Your task to perform on an android device: delete browsing data in the chrome app Image 0: 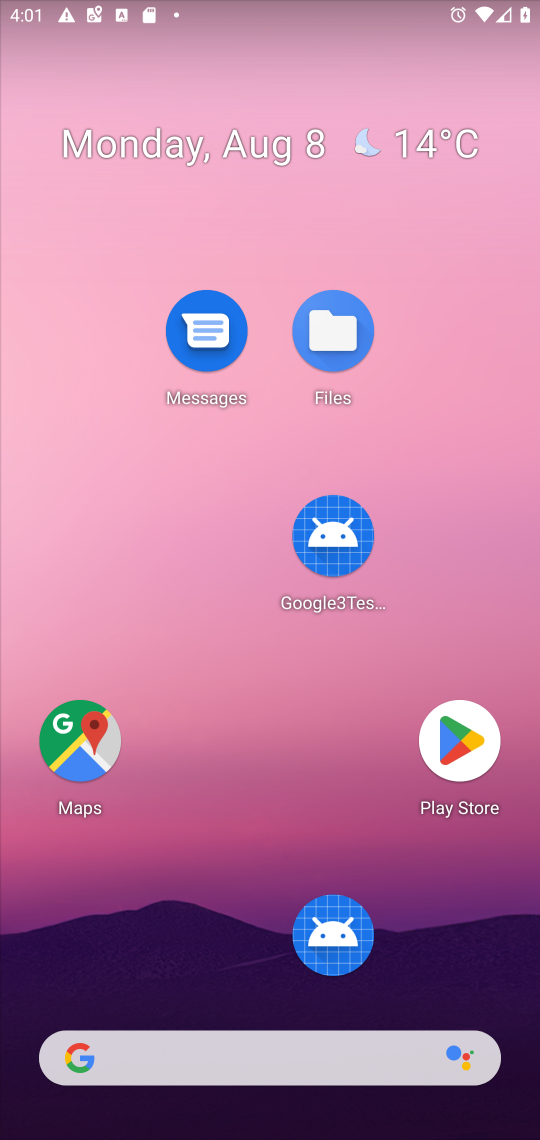
Step 0: drag from (290, 1061) to (339, 28)
Your task to perform on an android device: delete browsing data in the chrome app Image 1: 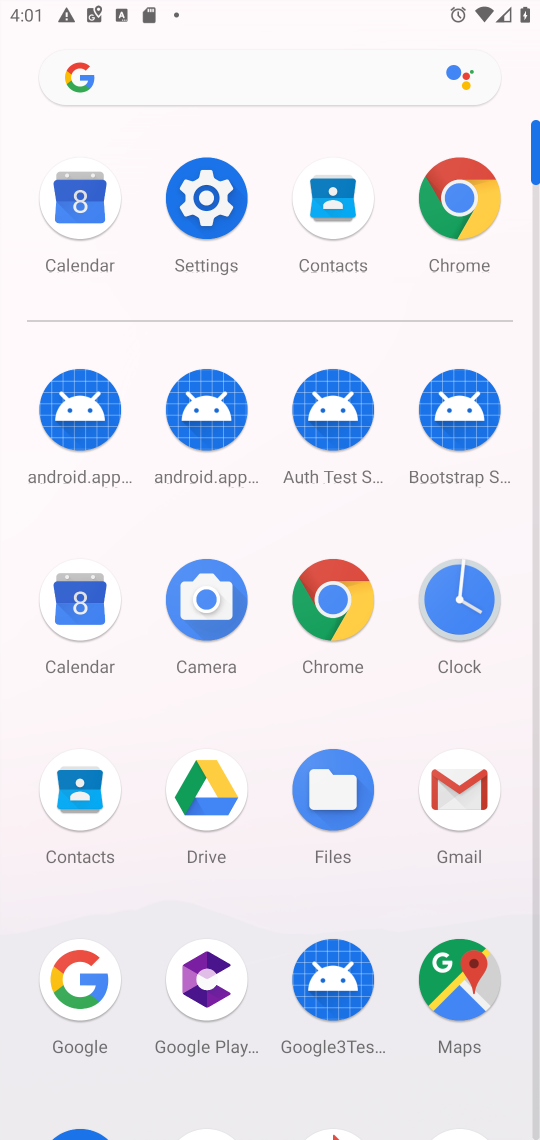
Step 1: click (353, 606)
Your task to perform on an android device: delete browsing data in the chrome app Image 2: 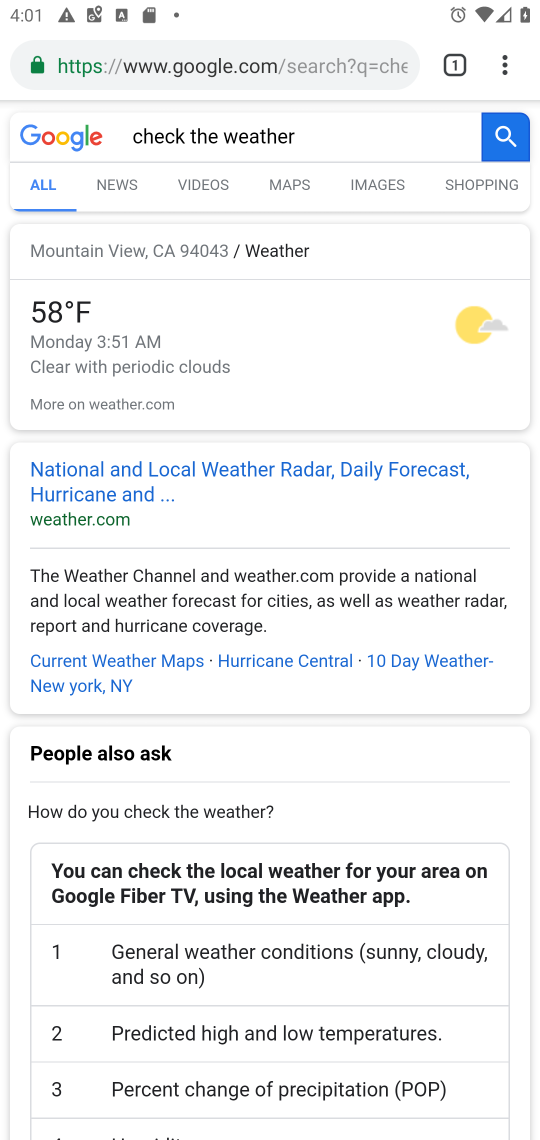
Step 2: click (499, 61)
Your task to perform on an android device: delete browsing data in the chrome app Image 3: 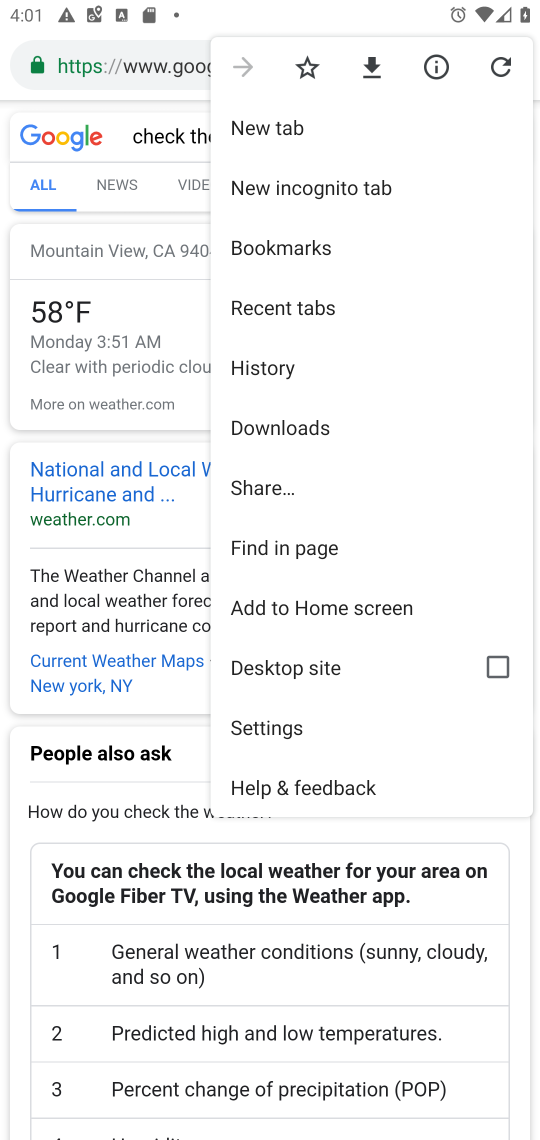
Step 3: click (283, 733)
Your task to perform on an android device: delete browsing data in the chrome app Image 4: 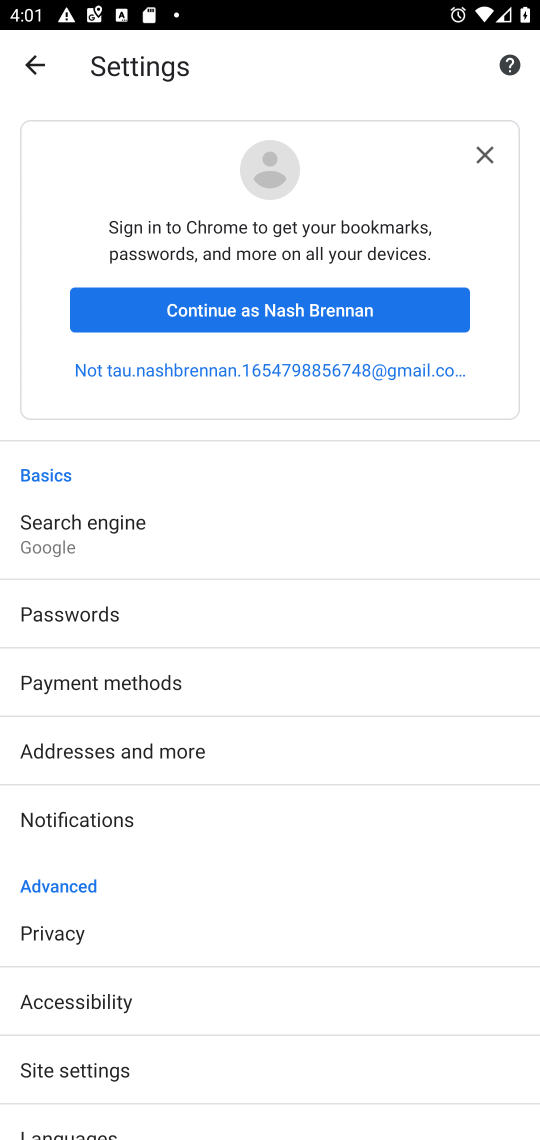
Step 4: drag from (367, 905) to (431, 316)
Your task to perform on an android device: delete browsing data in the chrome app Image 5: 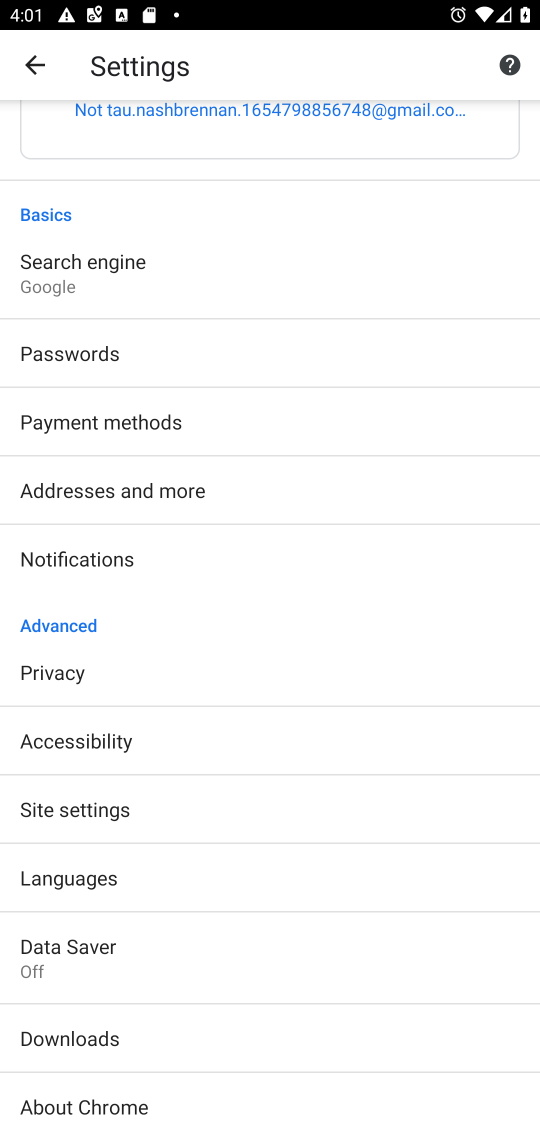
Step 5: click (71, 663)
Your task to perform on an android device: delete browsing data in the chrome app Image 6: 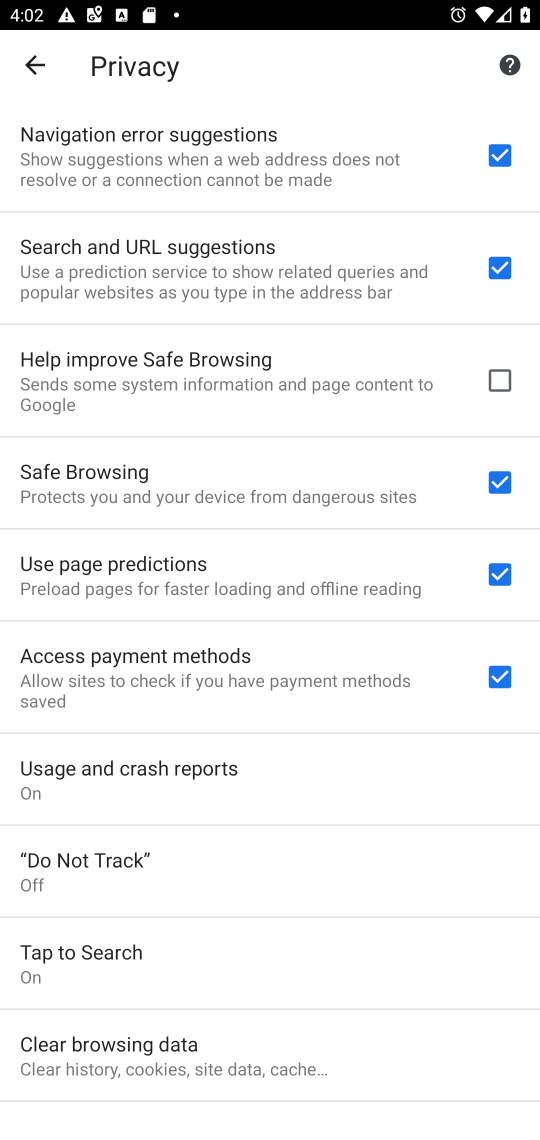
Step 6: click (169, 1070)
Your task to perform on an android device: delete browsing data in the chrome app Image 7: 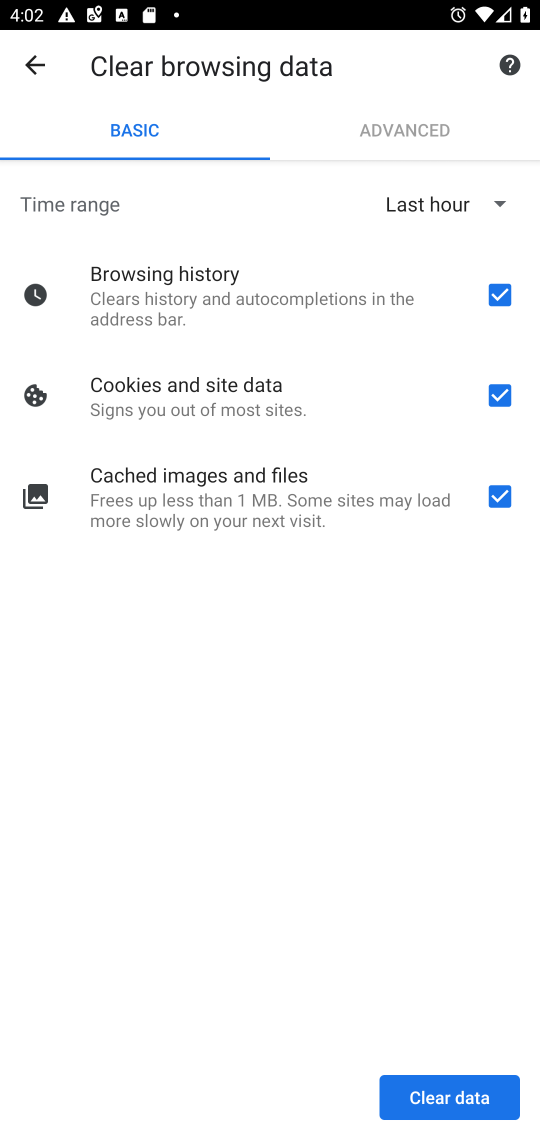
Step 7: click (495, 1088)
Your task to perform on an android device: delete browsing data in the chrome app Image 8: 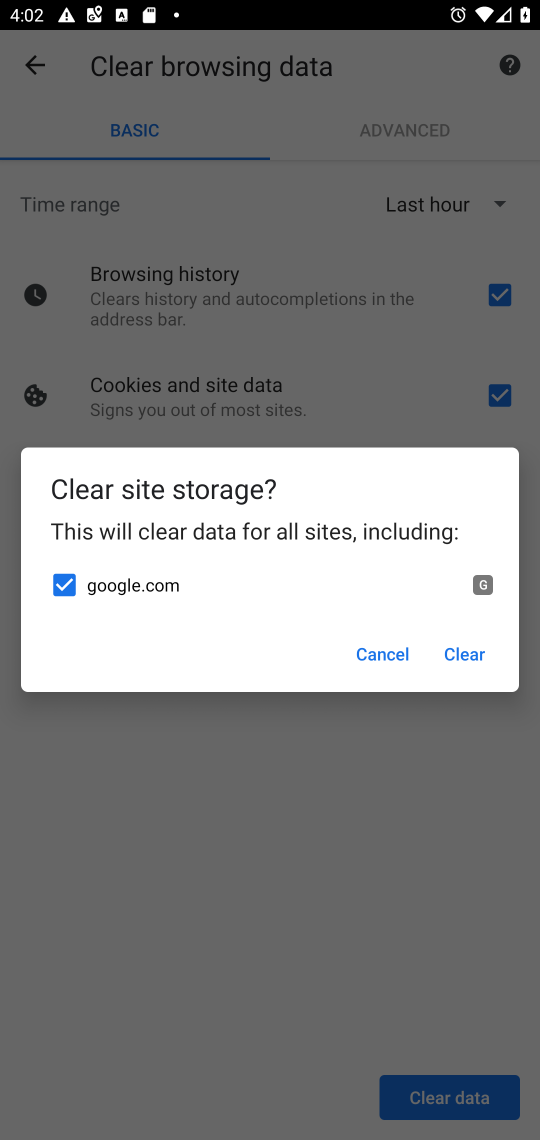
Step 8: click (457, 654)
Your task to perform on an android device: delete browsing data in the chrome app Image 9: 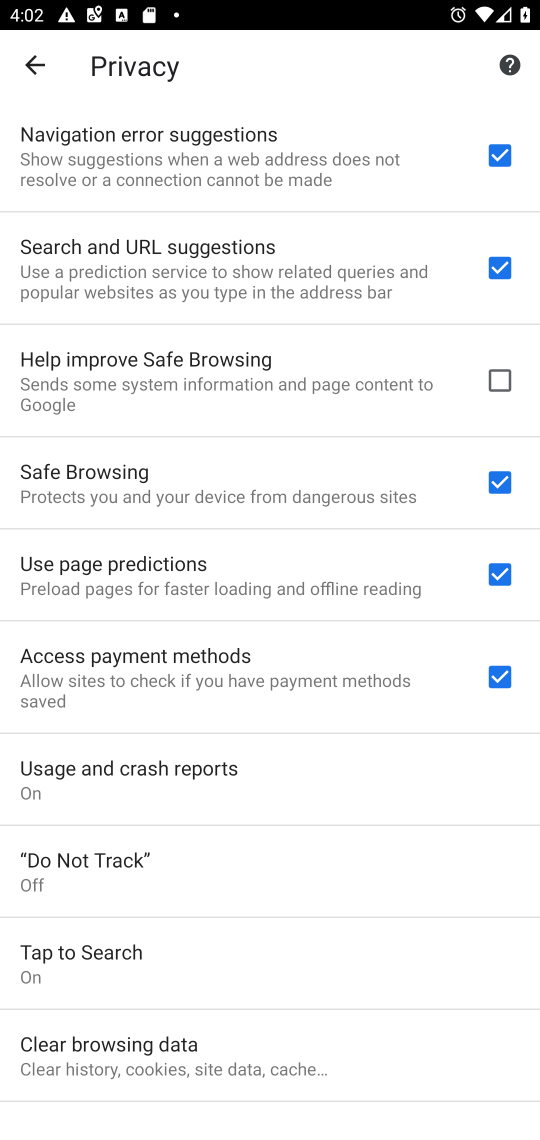
Step 9: click (197, 1041)
Your task to perform on an android device: delete browsing data in the chrome app Image 10: 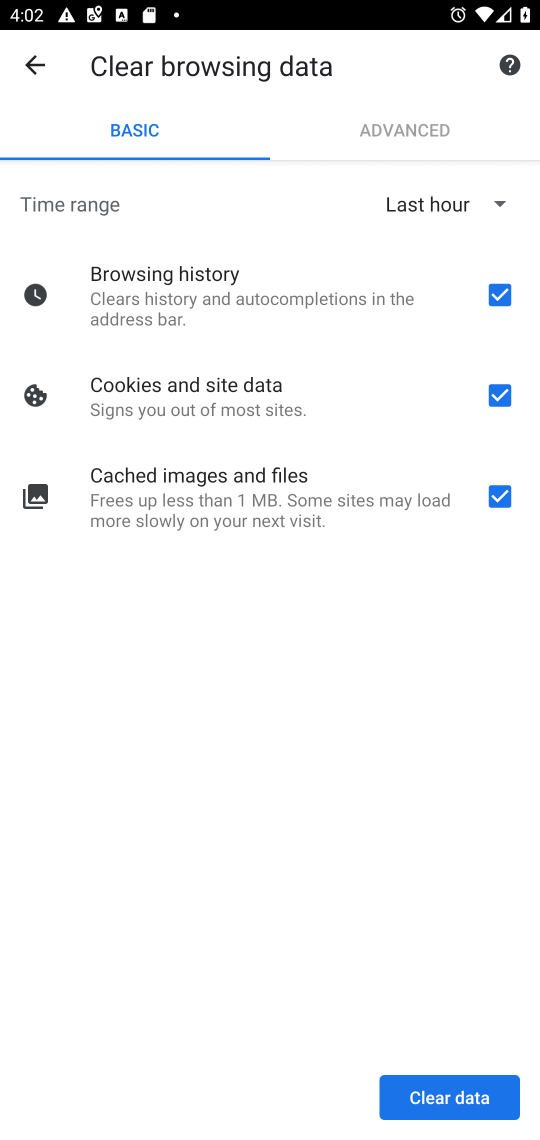
Step 10: click (452, 1088)
Your task to perform on an android device: delete browsing data in the chrome app Image 11: 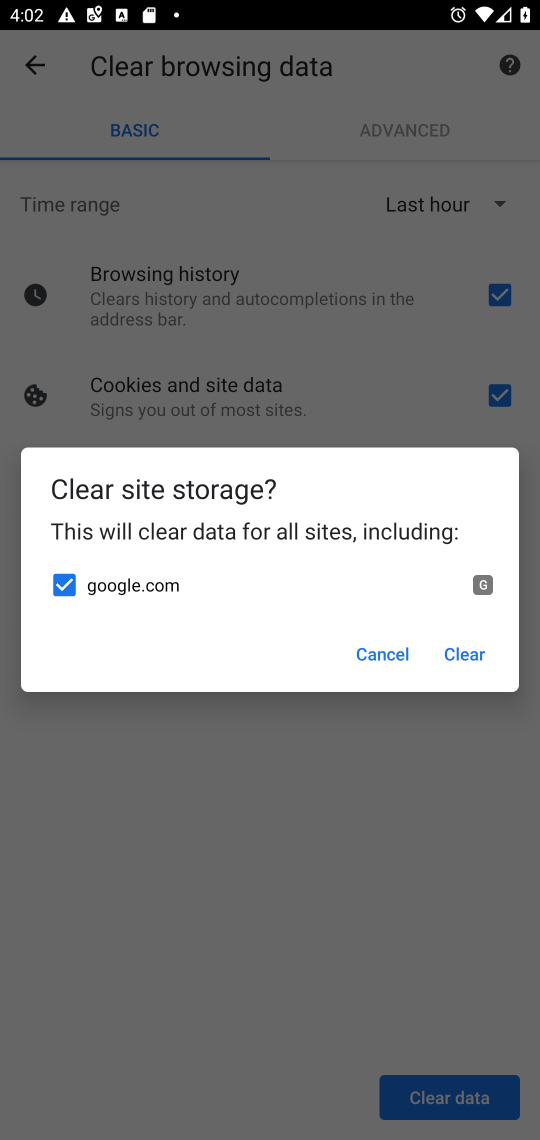
Step 11: click (471, 644)
Your task to perform on an android device: delete browsing data in the chrome app Image 12: 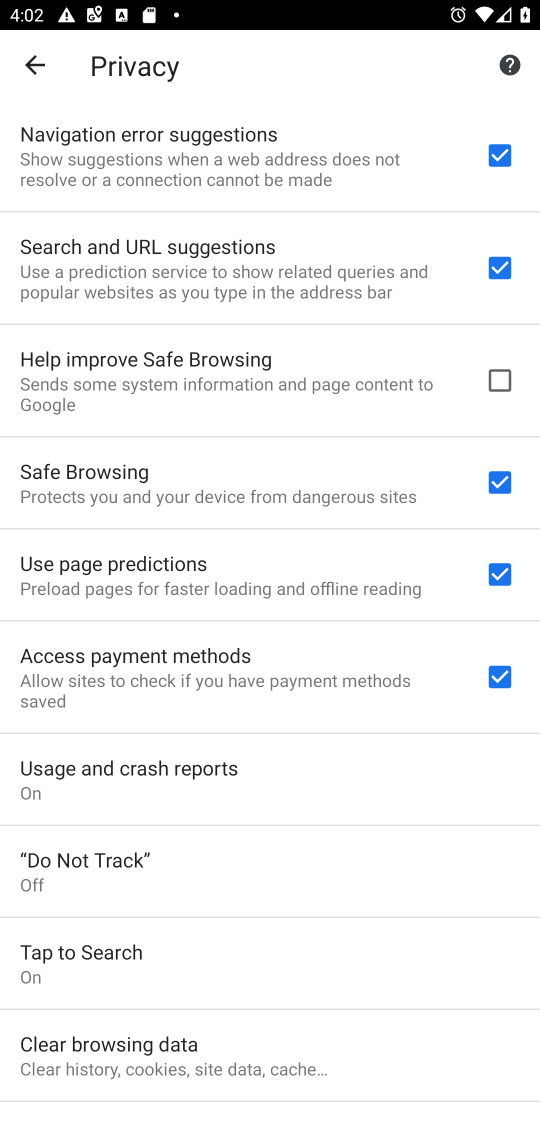
Step 12: task complete